Your task to perform on an android device: Open location settings Image 0: 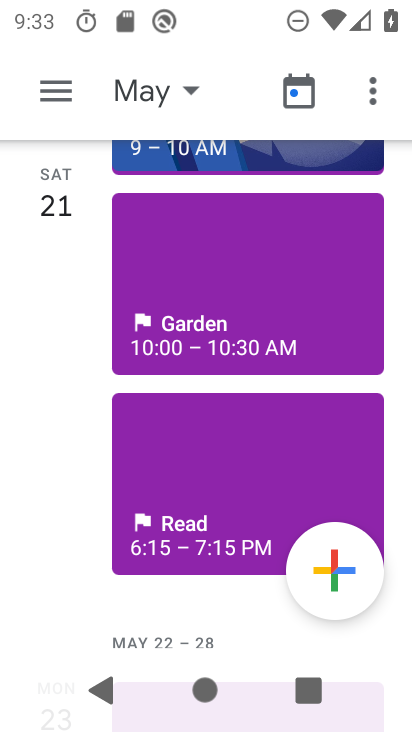
Step 0: press home button
Your task to perform on an android device: Open location settings Image 1: 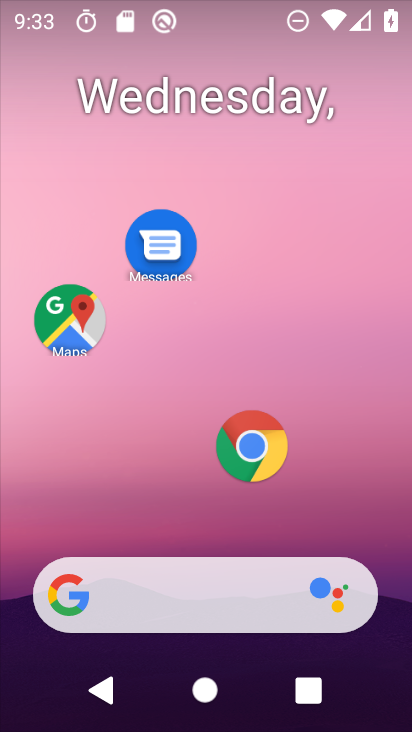
Step 1: drag from (209, 536) to (280, 54)
Your task to perform on an android device: Open location settings Image 2: 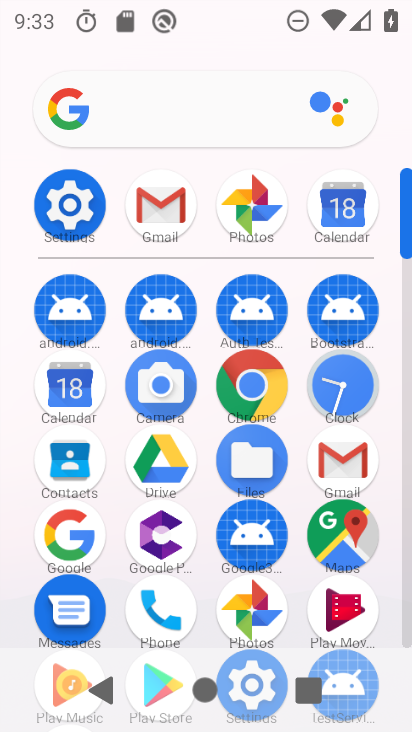
Step 2: click (76, 199)
Your task to perform on an android device: Open location settings Image 3: 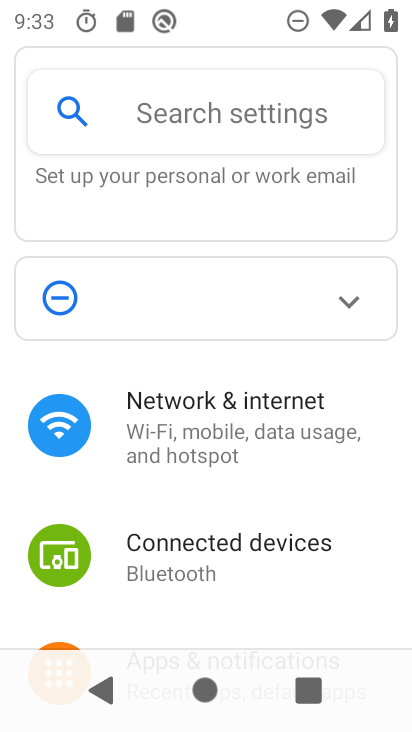
Step 3: drag from (245, 592) to (310, 156)
Your task to perform on an android device: Open location settings Image 4: 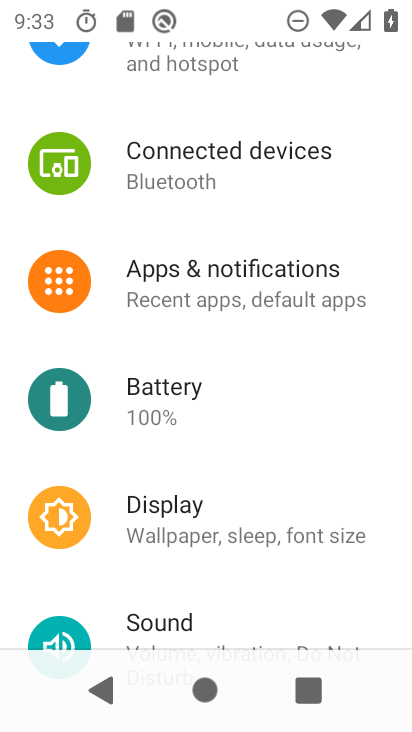
Step 4: drag from (235, 595) to (304, 108)
Your task to perform on an android device: Open location settings Image 5: 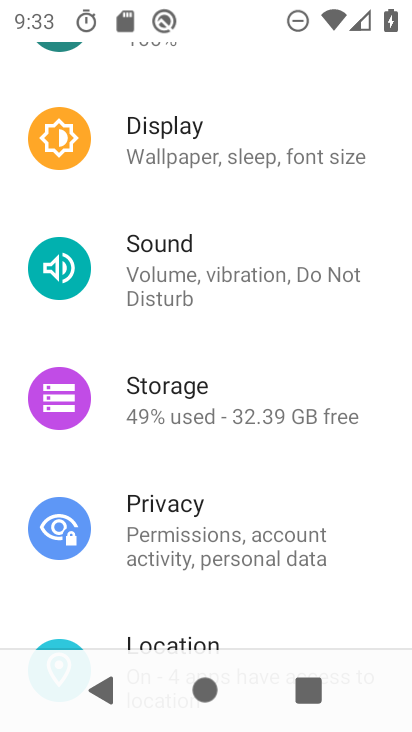
Step 5: click (234, 627)
Your task to perform on an android device: Open location settings Image 6: 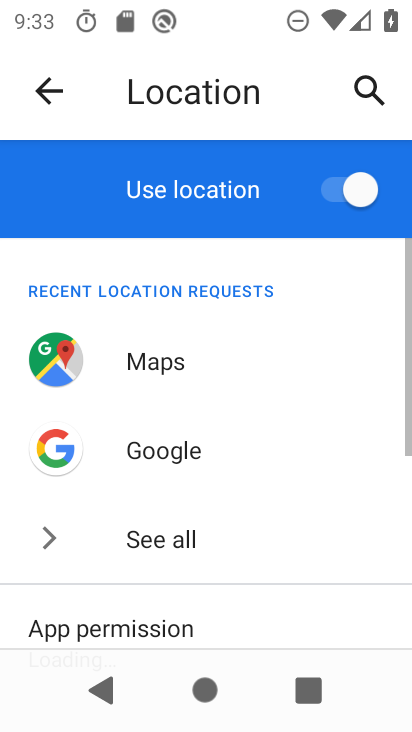
Step 6: drag from (224, 604) to (275, 153)
Your task to perform on an android device: Open location settings Image 7: 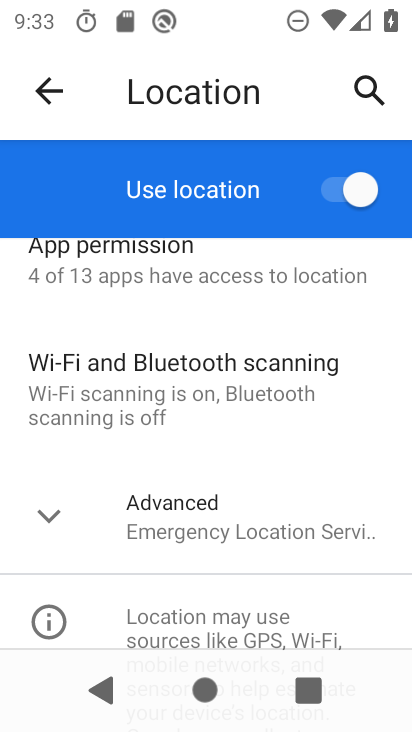
Step 7: click (49, 517)
Your task to perform on an android device: Open location settings Image 8: 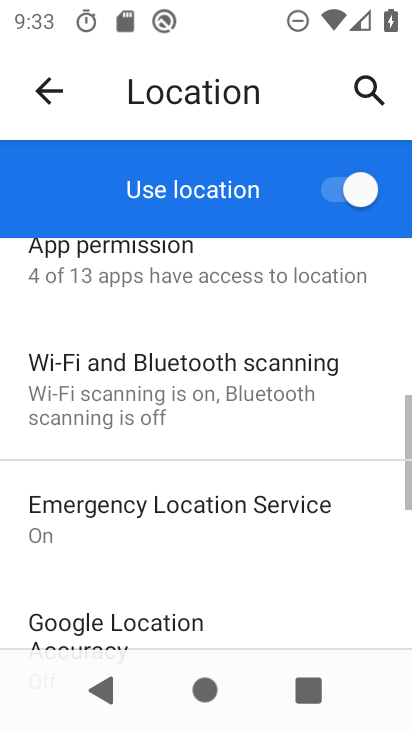
Step 8: task complete